Your task to perform on an android device: Search for the new nintendo switch on Walmart. Image 0: 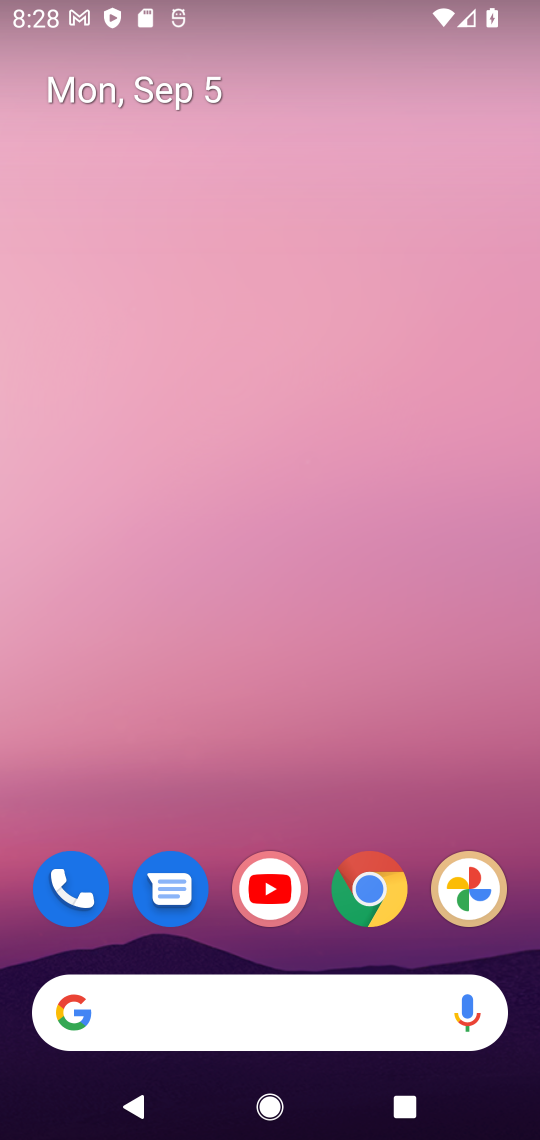
Step 0: click (245, 1008)
Your task to perform on an android device: Search for the new nintendo switch on Walmart. Image 1: 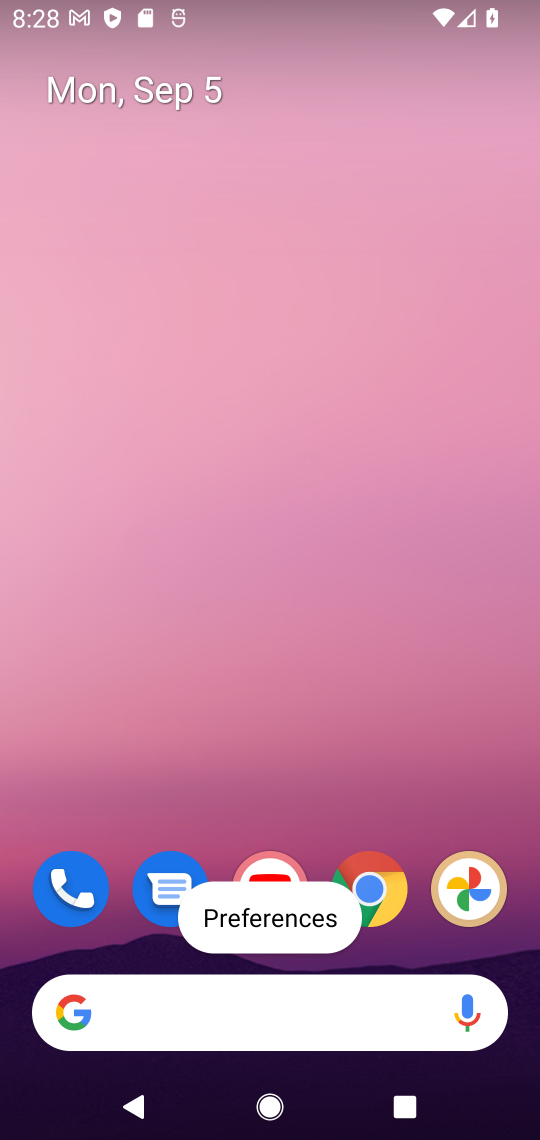
Step 1: click (224, 1024)
Your task to perform on an android device: Search for the new nintendo switch on Walmart. Image 2: 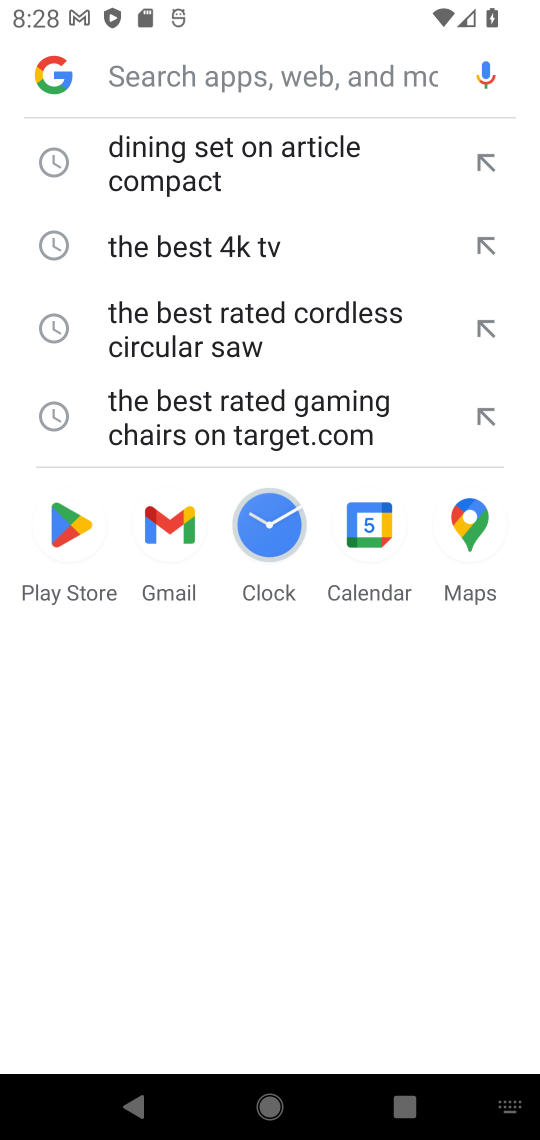
Step 2: type "the new nintendo switch on Walmart."
Your task to perform on an android device: Search for the new nintendo switch on Walmart. Image 3: 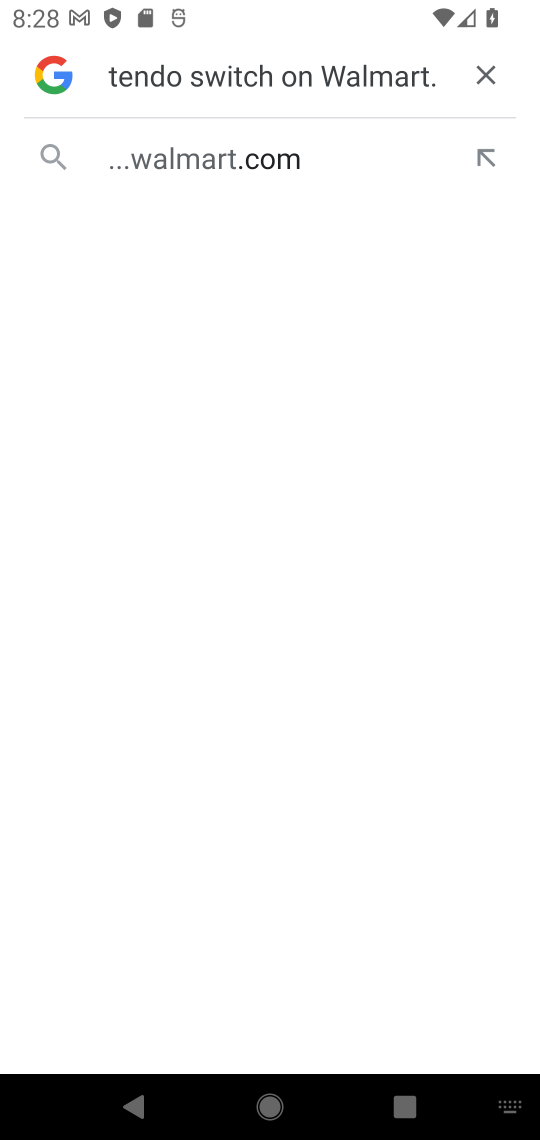
Step 3: click (259, 153)
Your task to perform on an android device: Search for the new nintendo switch on Walmart. Image 4: 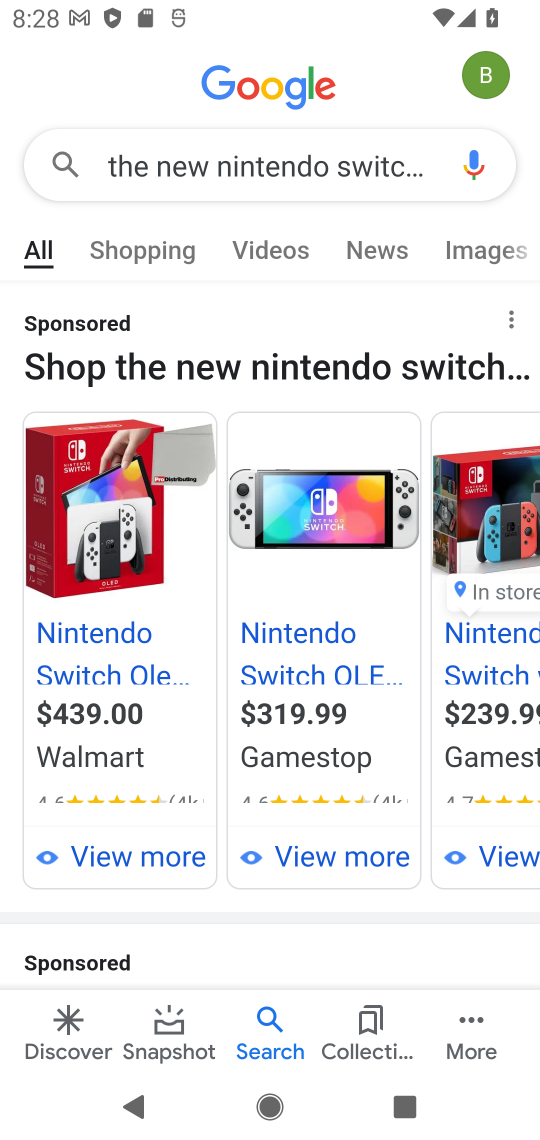
Step 4: task complete